Your task to perform on an android device: toggle data saver in the chrome app Image 0: 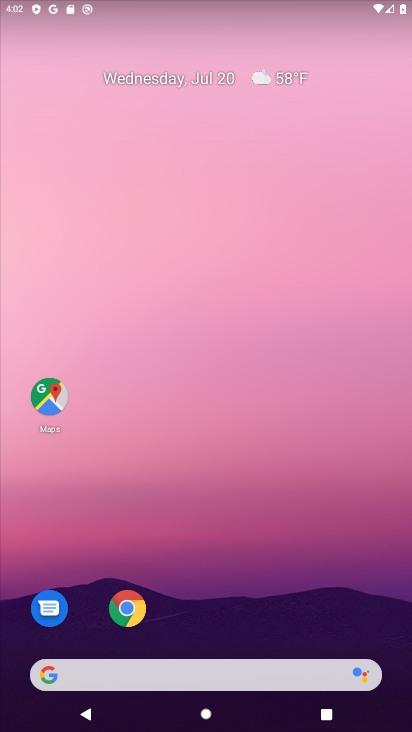
Step 0: click (126, 615)
Your task to perform on an android device: toggle data saver in the chrome app Image 1: 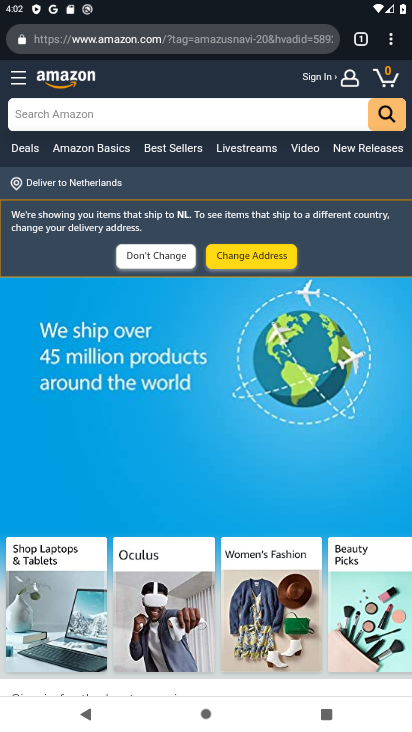
Step 1: click (396, 40)
Your task to perform on an android device: toggle data saver in the chrome app Image 2: 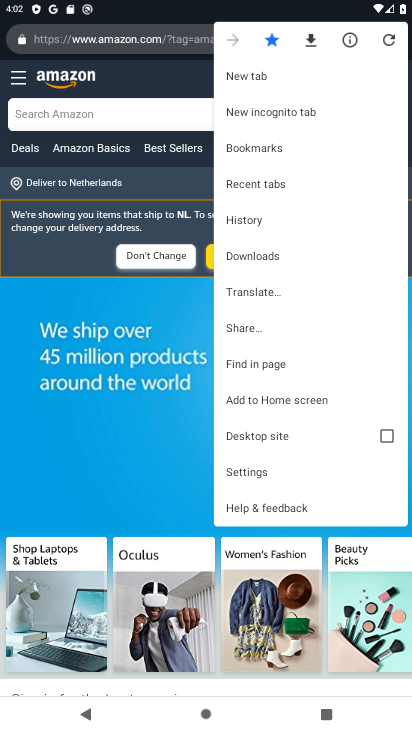
Step 2: click (264, 479)
Your task to perform on an android device: toggle data saver in the chrome app Image 3: 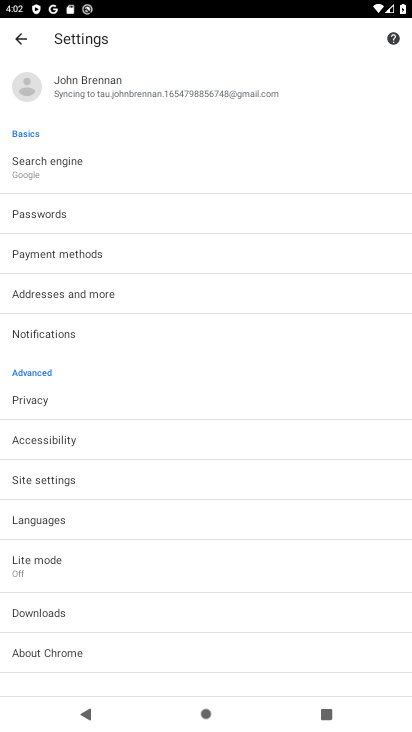
Step 3: click (41, 577)
Your task to perform on an android device: toggle data saver in the chrome app Image 4: 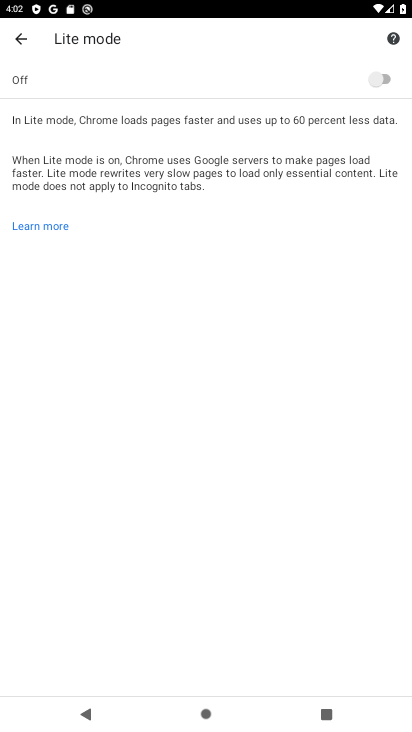
Step 4: click (365, 90)
Your task to perform on an android device: toggle data saver in the chrome app Image 5: 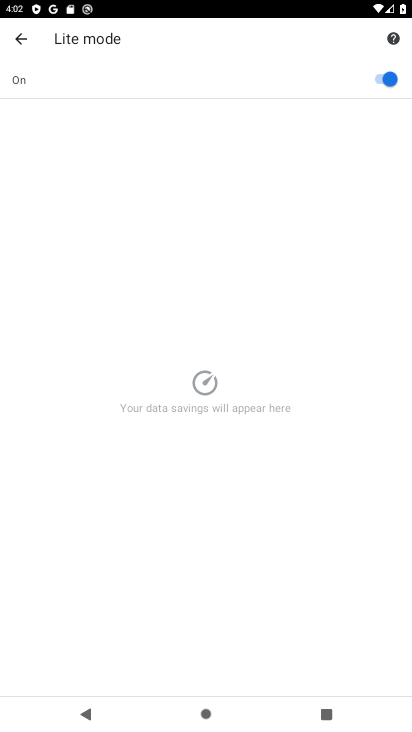
Step 5: task complete